Your task to perform on an android device: Open Google Chrome and open the bookmarks view Image 0: 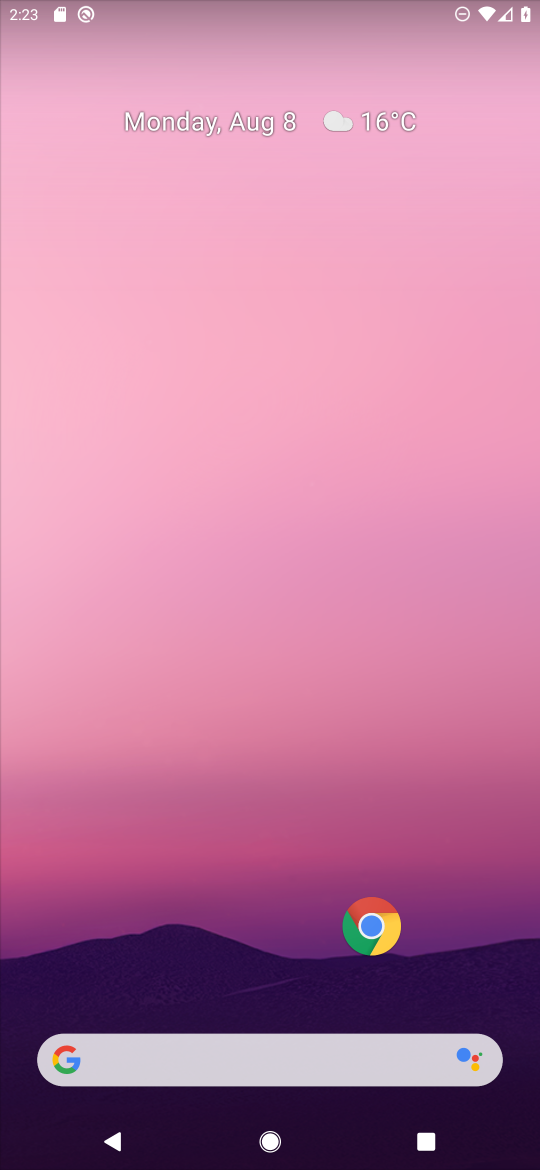
Step 0: drag from (290, 935) to (305, 206)
Your task to perform on an android device: Open Google Chrome and open the bookmarks view Image 1: 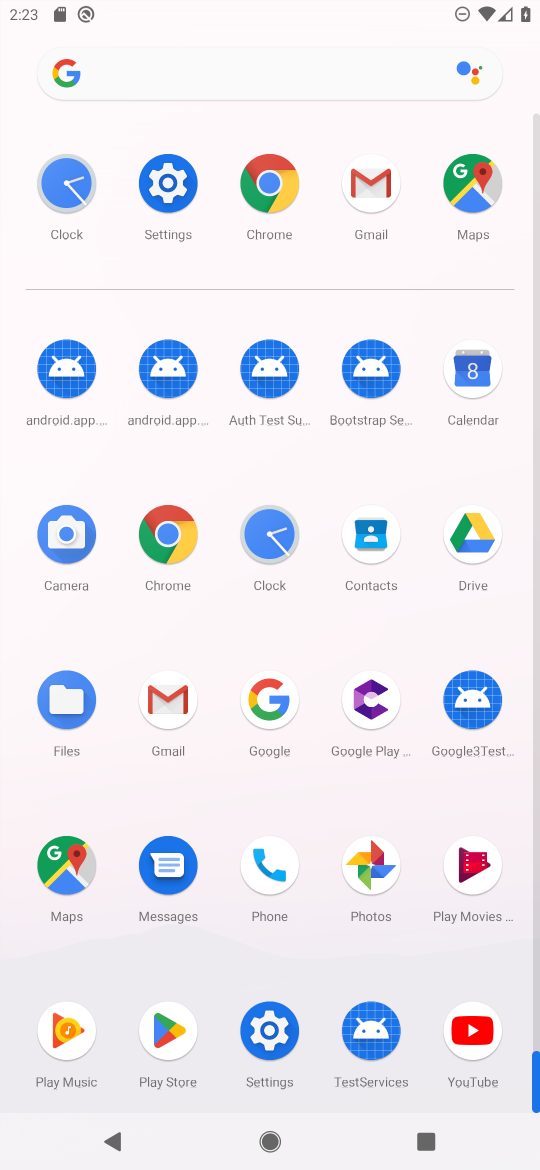
Step 1: click (282, 187)
Your task to perform on an android device: Open Google Chrome and open the bookmarks view Image 2: 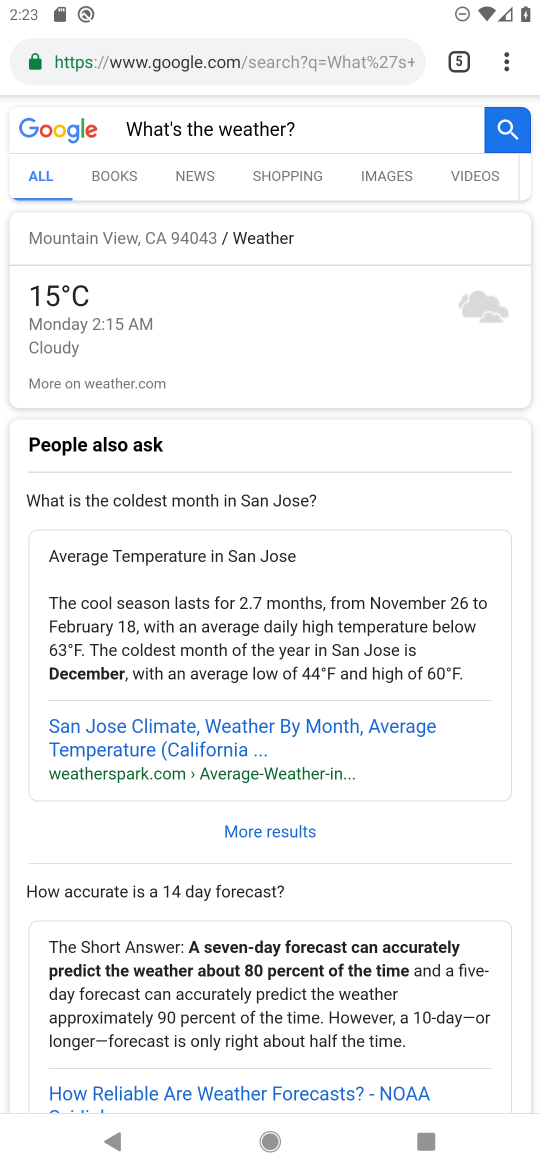
Step 2: click (504, 72)
Your task to perform on an android device: Open Google Chrome and open the bookmarks view Image 3: 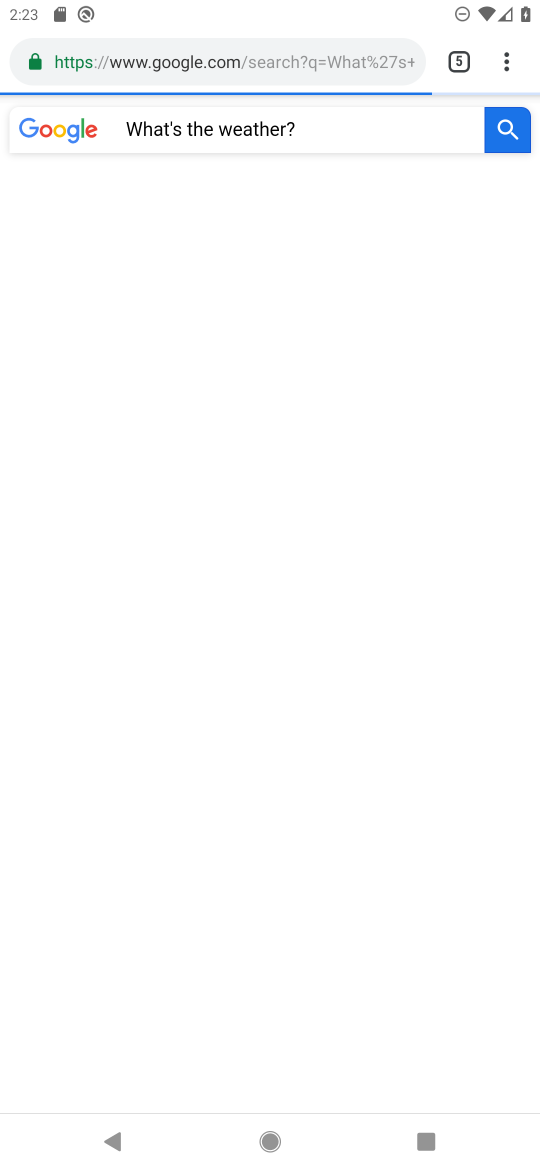
Step 3: click (504, 72)
Your task to perform on an android device: Open Google Chrome and open the bookmarks view Image 4: 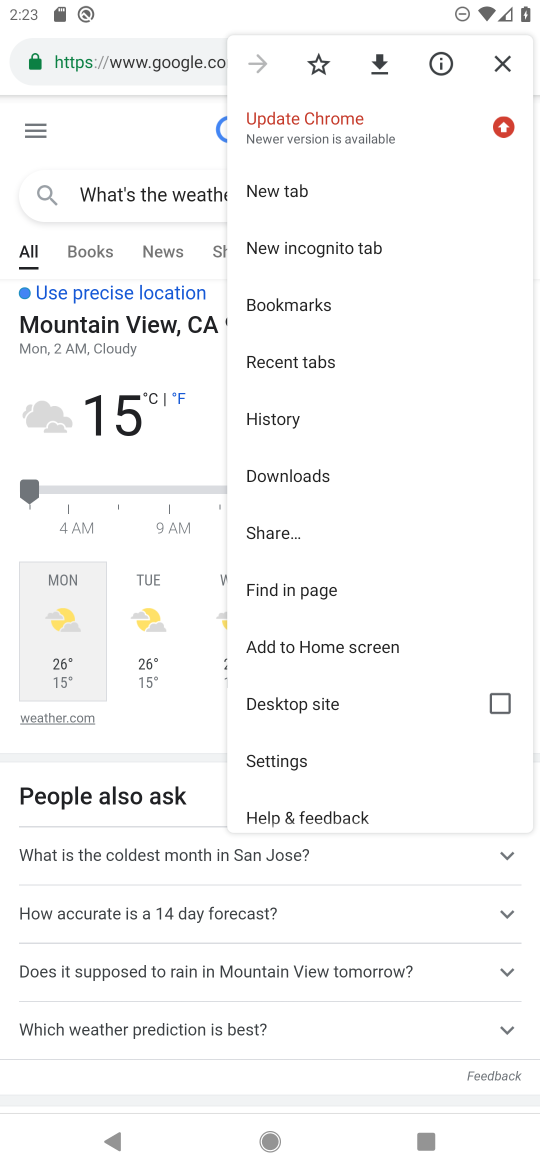
Step 4: click (292, 752)
Your task to perform on an android device: Open Google Chrome and open the bookmarks view Image 5: 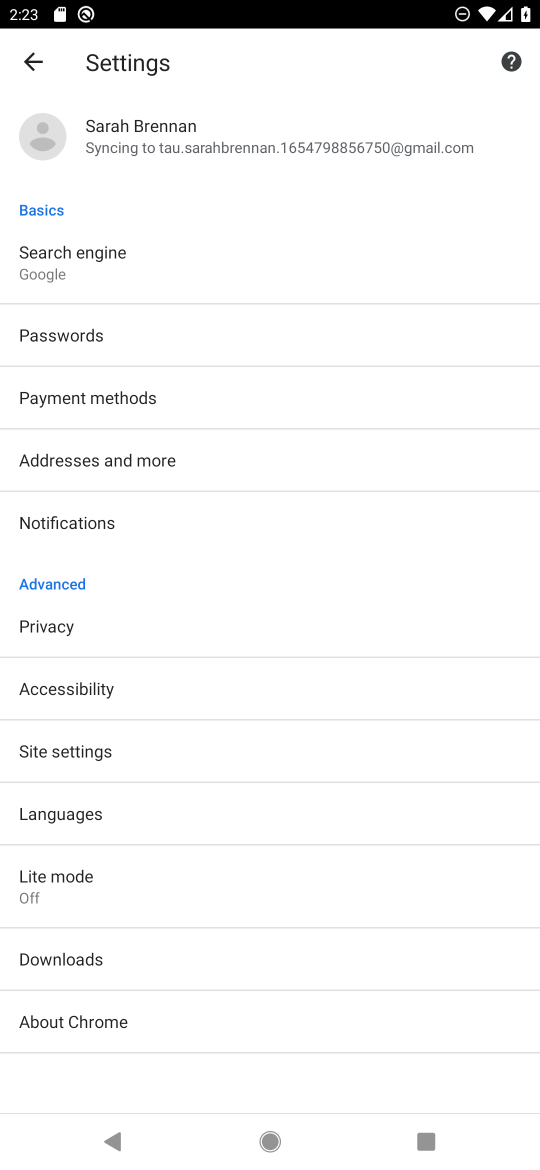
Step 5: click (36, 60)
Your task to perform on an android device: Open Google Chrome and open the bookmarks view Image 6: 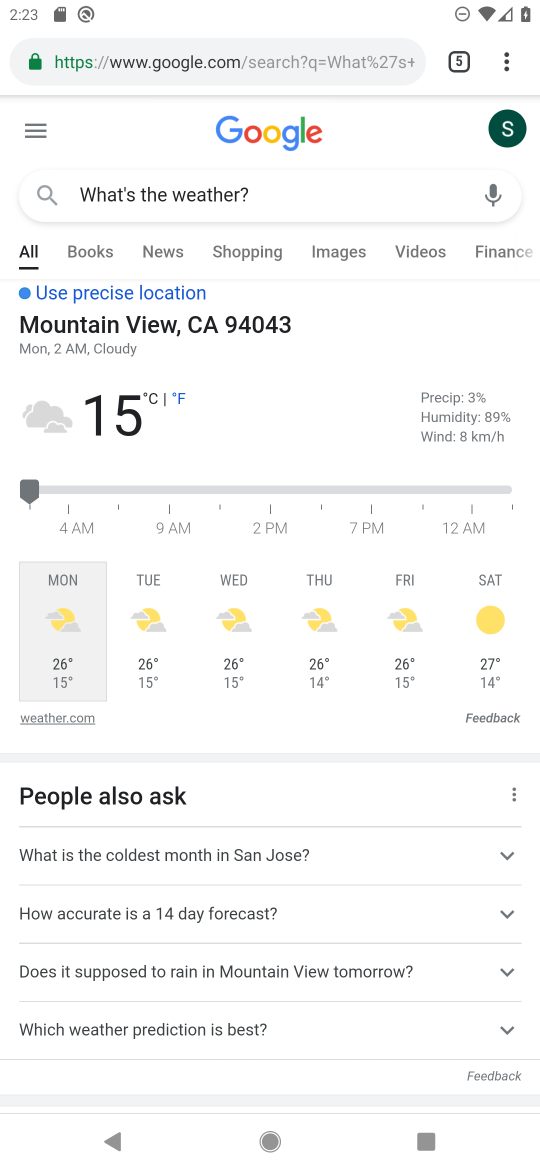
Step 6: click (504, 69)
Your task to perform on an android device: Open Google Chrome and open the bookmarks view Image 7: 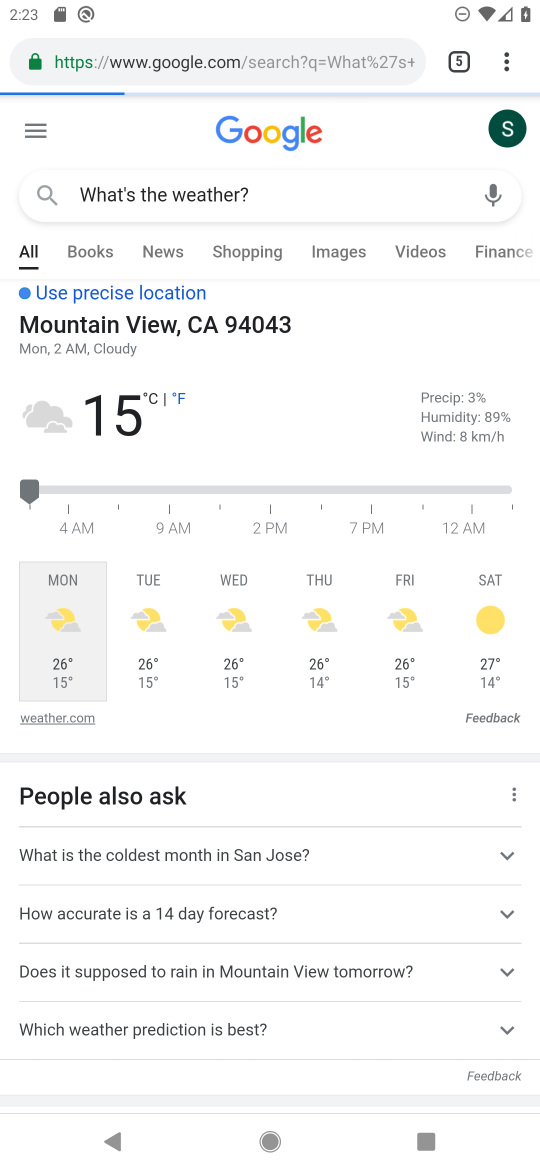
Step 7: click (504, 69)
Your task to perform on an android device: Open Google Chrome and open the bookmarks view Image 8: 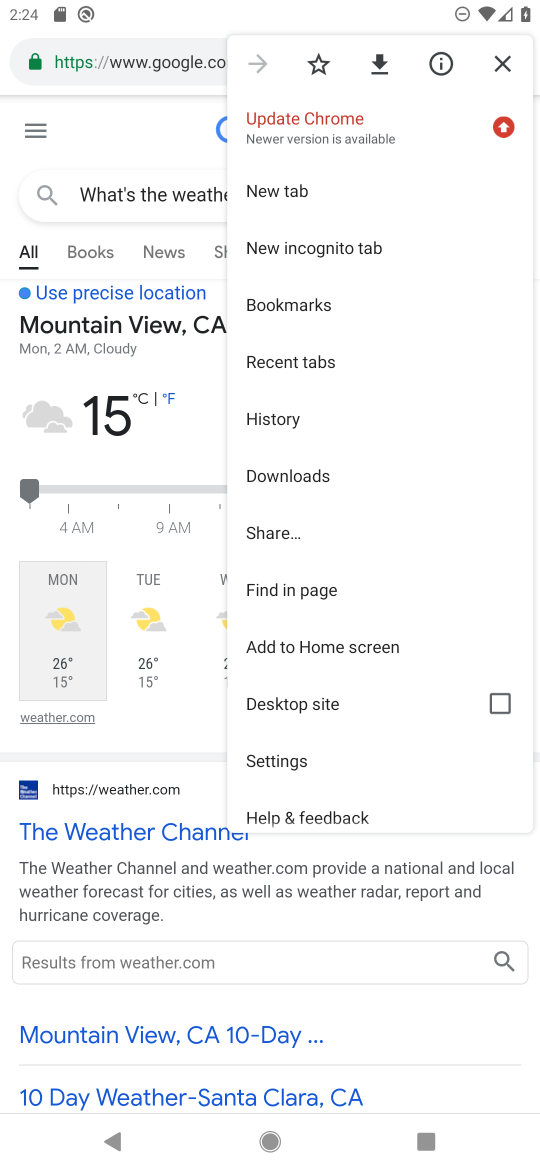
Step 8: click (337, 300)
Your task to perform on an android device: Open Google Chrome and open the bookmarks view Image 9: 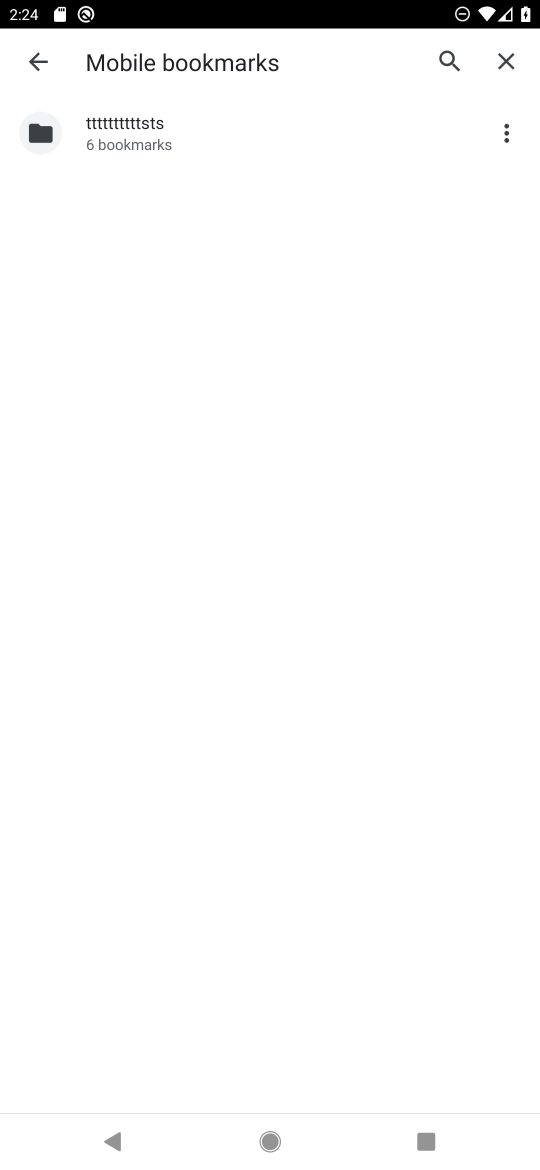
Step 9: task complete